Your task to perform on an android device: Open the calendar app, open the side menu, and click the "Day" option Image 0: 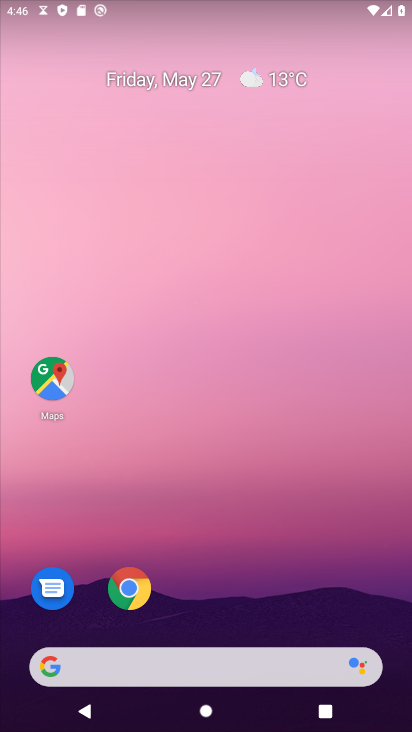
Step 0: drag from (246, 585) to (314, 127)
Your task to perform on an android device: Open the calendar app, open the side menu, and click the "Day" option Image 1: 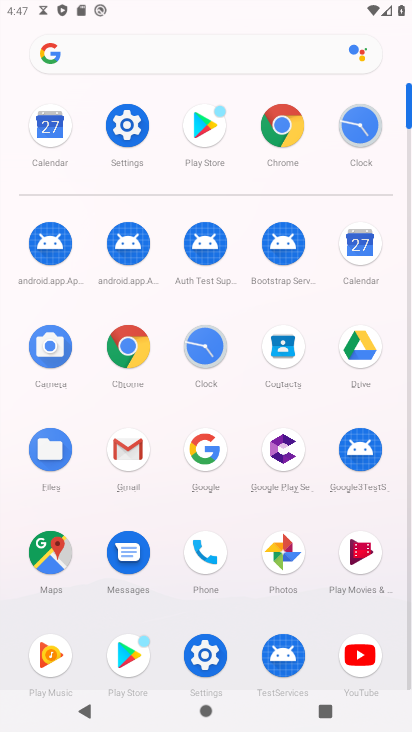
Step 1: click (354, 258)
Your task to perform on an android device: Open the calendar app, open the side menu, and click the "Day" option Image 2: 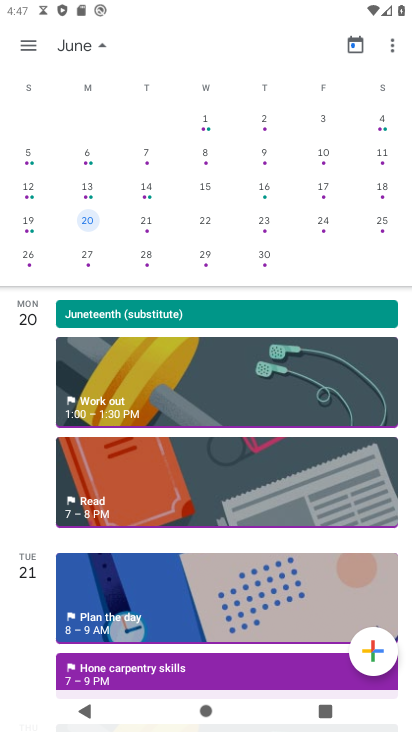
Step 2: click (27, 48)
Your task to perform on an android device: Open the calendar app, open the side menu, and click the "Day" option Image 3: 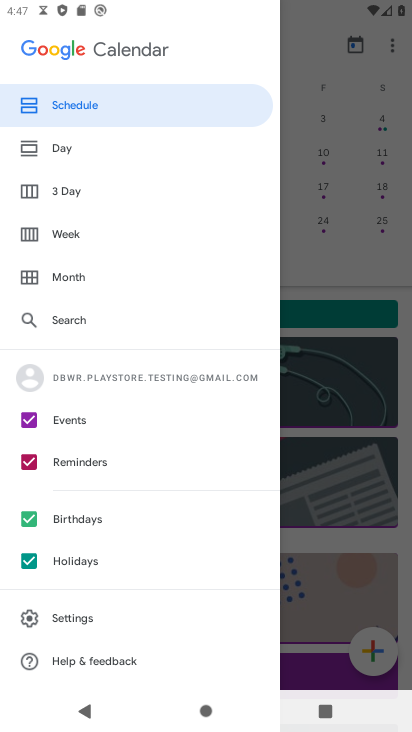
Step 3: click (75, 143)
Your task to perform on an android device: Open the calendar app, open the side menu, and click the "Day" option Image 4: 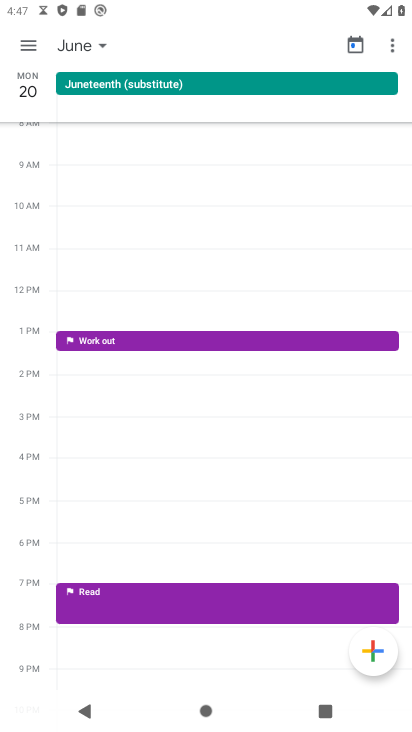
Step 4: task complete